Your task to perform on an android device: Show me the alarms in the clock app Image 0: 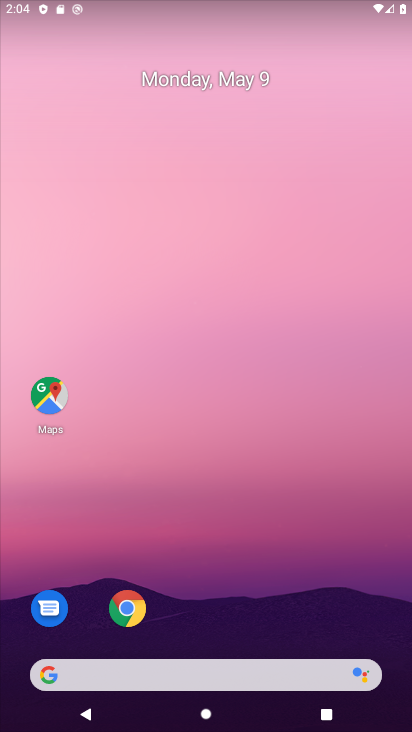
Step 0: drag from (172, 628) to (228, 215)
Your task to perform on an android device: Show me the alarms in the clock app Image 1: 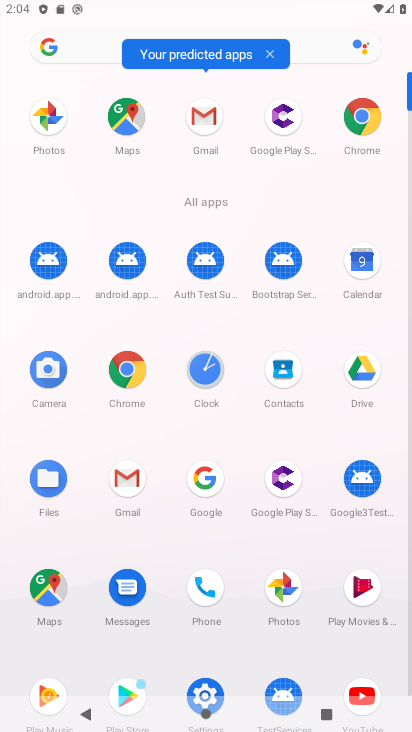
Step 1: click (201, 361)
Your task to perform on an android device: Show me the alarms in the clock app Image 2: 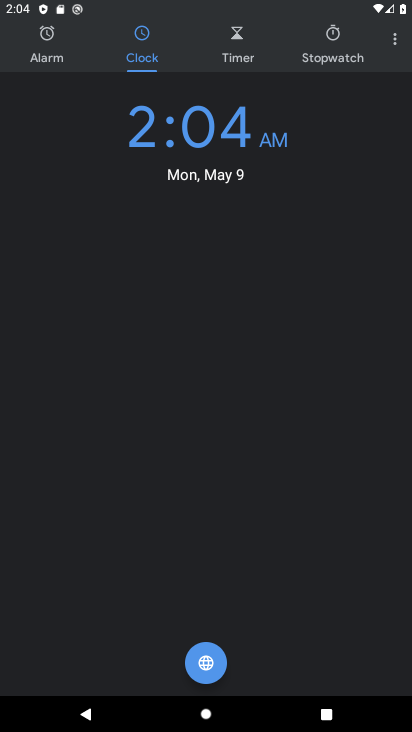
Step 2: click (62, 64)
Your task to perform on an android device: Show me the alarms in the clock app Image 3: 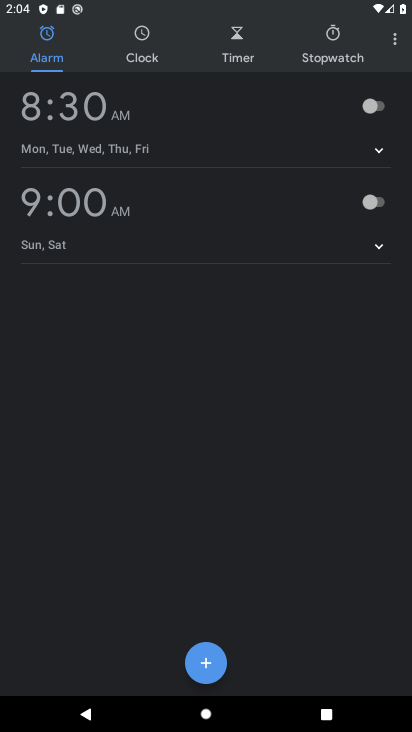
Step 3: click (374, 105)
Your task to perform on an android device: Show me the alarms in the clock app Image 4: 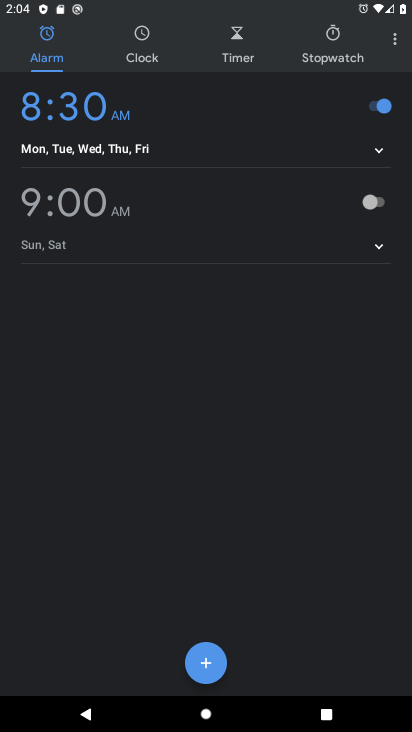
Step 4: task complete